Your task to perform on an android device: Go to sound settings Image 0: 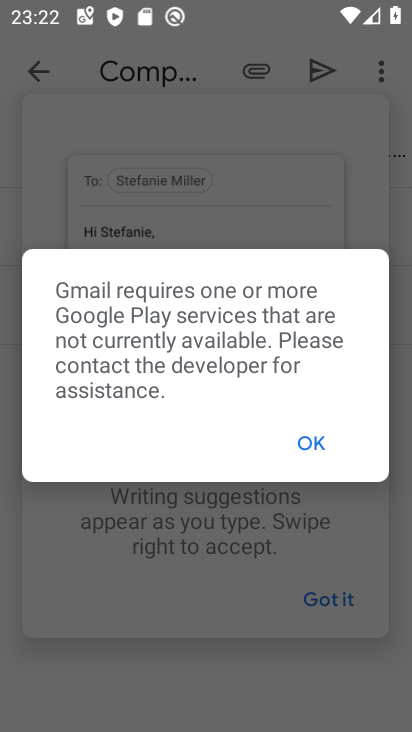
Step 0: press home button
Your task to perform on an android device: Go to sound settings Image 1: 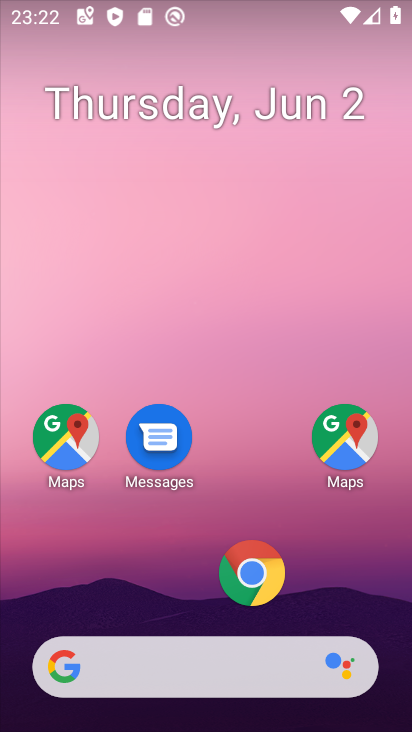
Step 1: drag from (276, 570) to (247, 228)
Your task to perform on an android device: Go to sound settings Image 2: 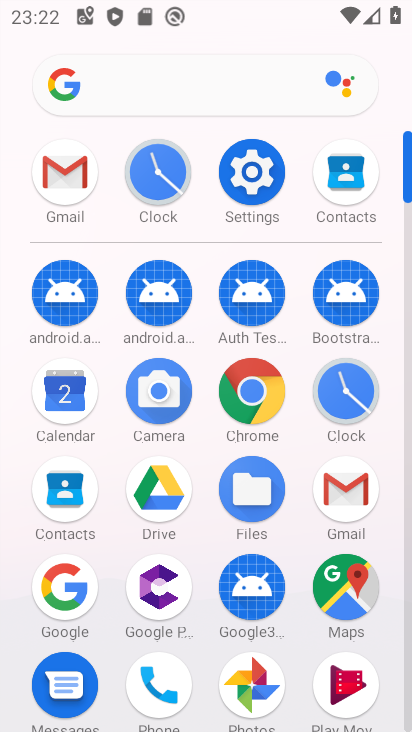
Step 2: click (267, 161)
Your task to perform on an android device: Go to sound settings Image 3: 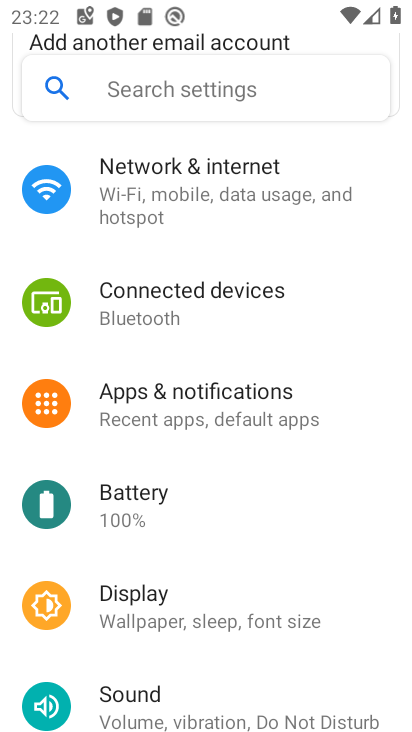
Step 3: click (147, 704)
Your task to perform on an android device: Go to sound settings Image 4: 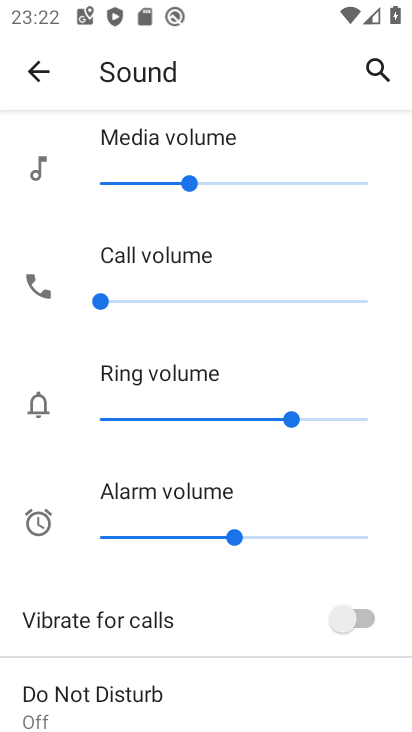
Step 4: task complete